Your task to perform on an android device: refresh tabs in the chrome app Image 0: 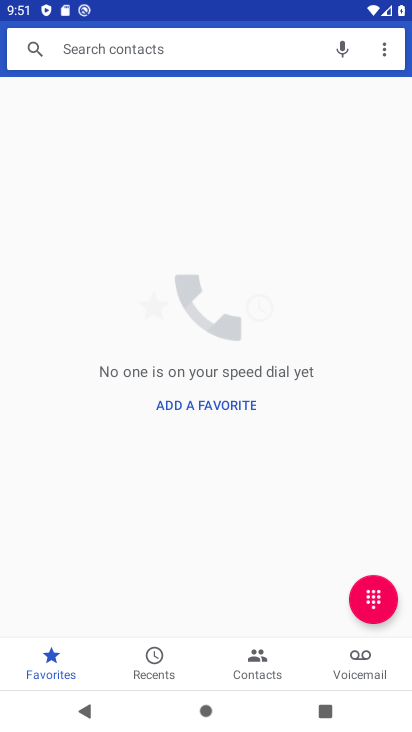
Step 0: press home button
Your task to perform on an android device: refresh tabs in the chrome app Image 1: 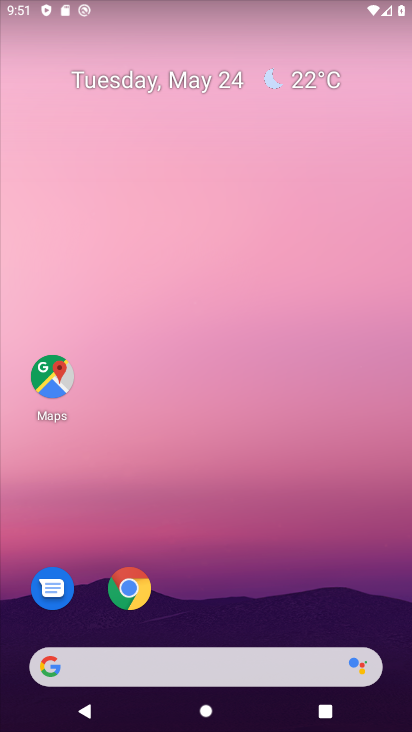
Step 1: click (134, 585)
Your task to perform on an android device: refresh tabs in the chrome app Image 2: 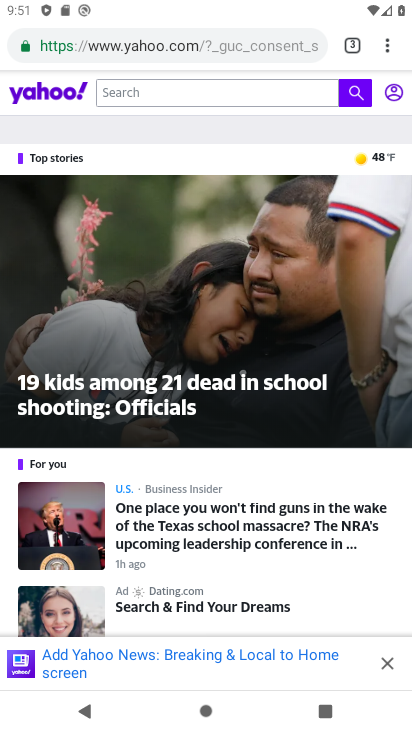
Step 2: click (389, 45)
Your task to perform on an android device: refresh tabs in the chrome app Image 3: 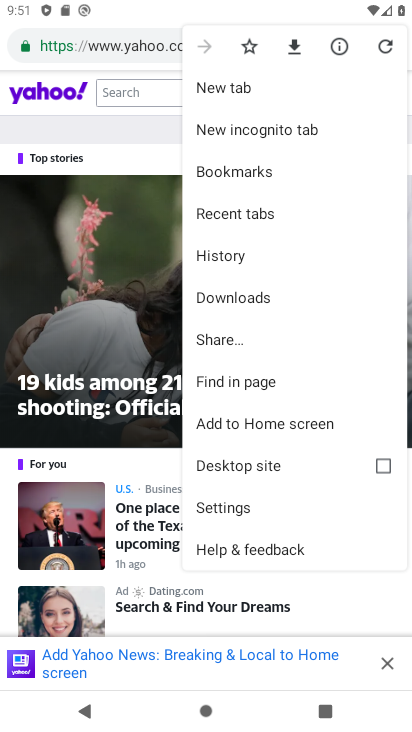
Step 3: click (389, 45)
Your task to perform on an android device: refresh tabs in the chrome app Image 4: 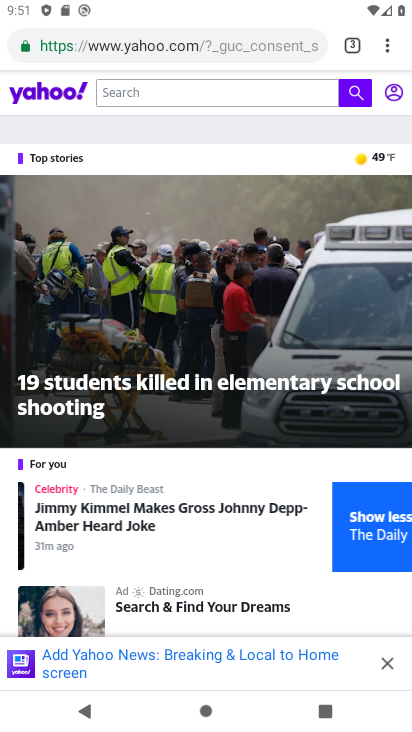
Step 4: task complete